Your task to perform on an android device: turn off location Image 0: 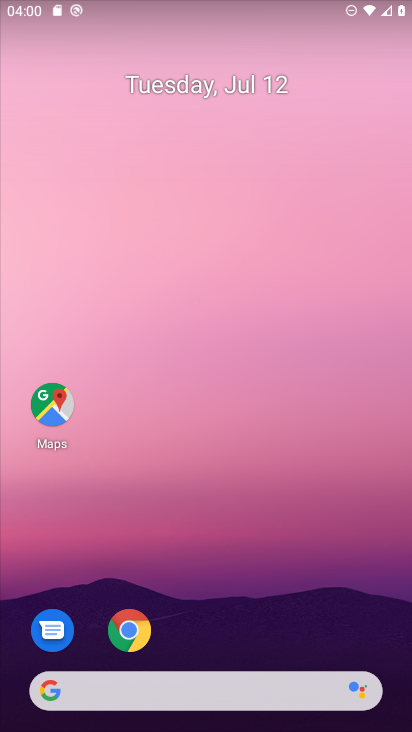
Step 0: drag from (290, 642) to (291, 140)
Your task to perform on an android device: turn off location Image 1: 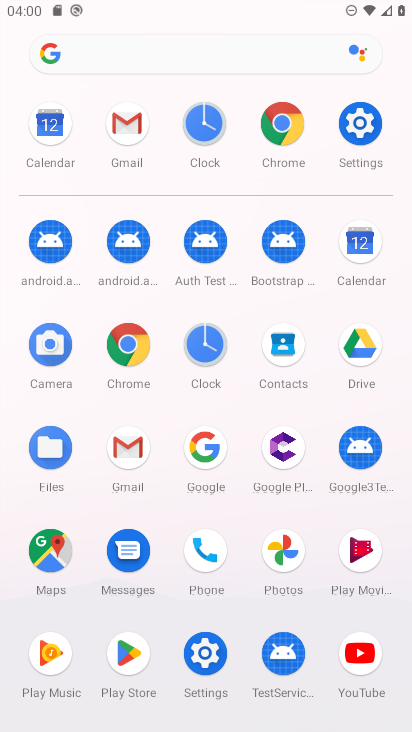
Step 1: click (204, 656)
Your task to perform on an android device: turn off location Image 2: 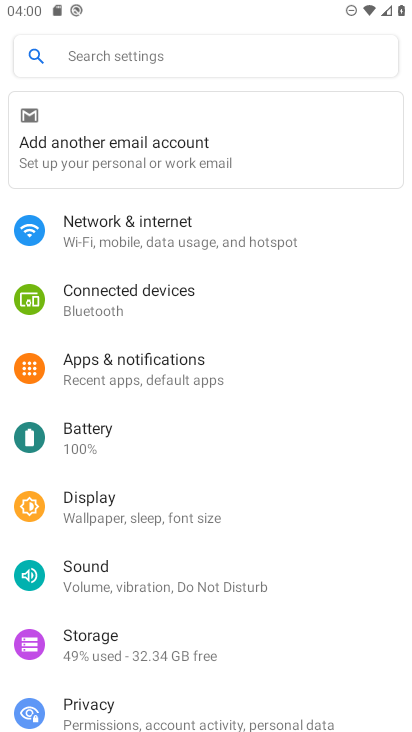
Step 2: drag from (318, 627) to (307, 342)
Your task to perform on an android device: turn off location Image 3: 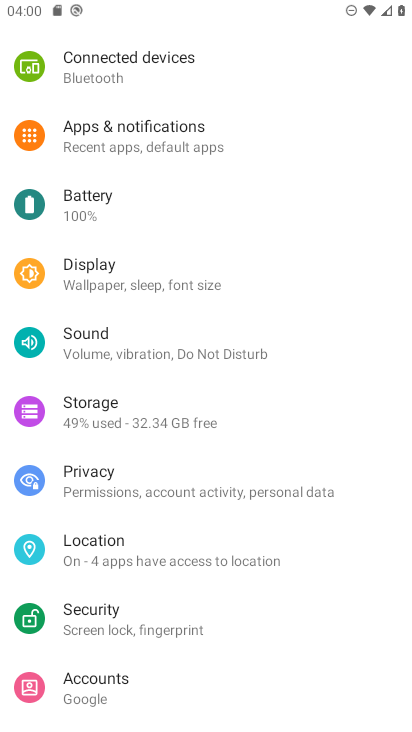
Step 3: click (114, 551)
Your task to perform on an android device: turn off location Image 4: 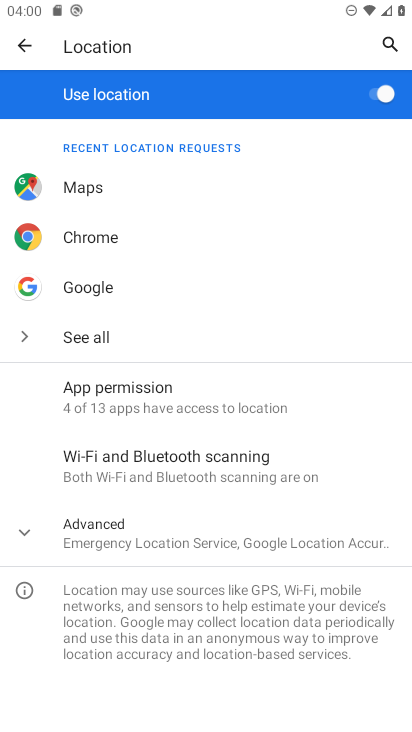
Step 4: click (374, 92)
Your task to perform on an android device: turn off location Image 5: 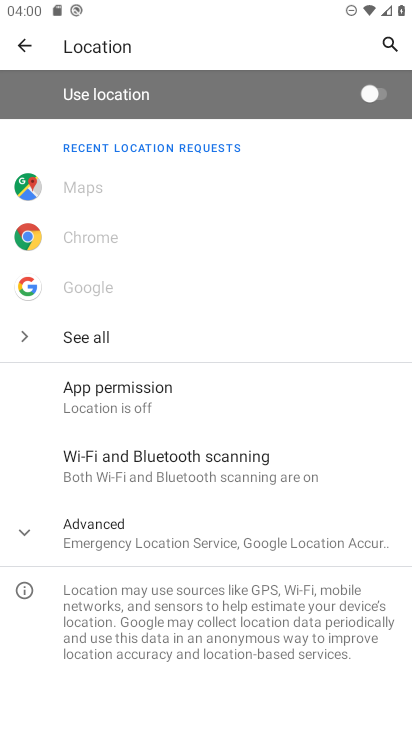
Step 5: task complete